Your task to perform on an android device: Go to sound settings Image 0: 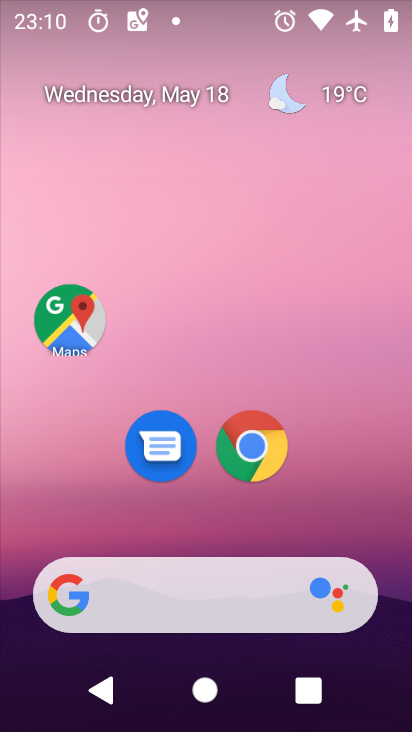
Step 0: press home button
Your task to perform on an android device: Go to sound settings Image 1: 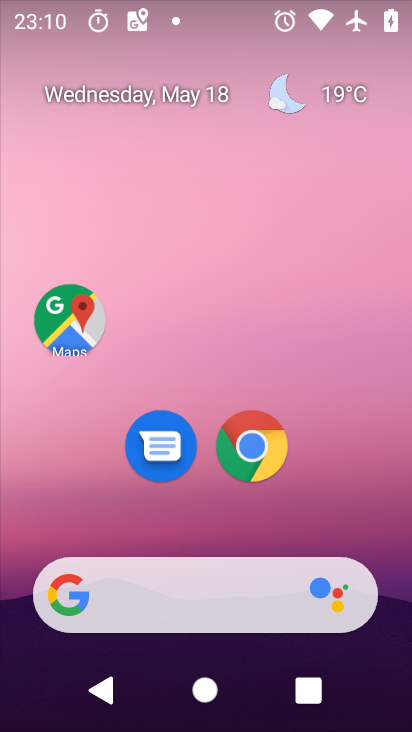
Step 1: drag from (239, 584) to (366, 97)
Your task to perform on an android device: Go to sound settings Image 2: 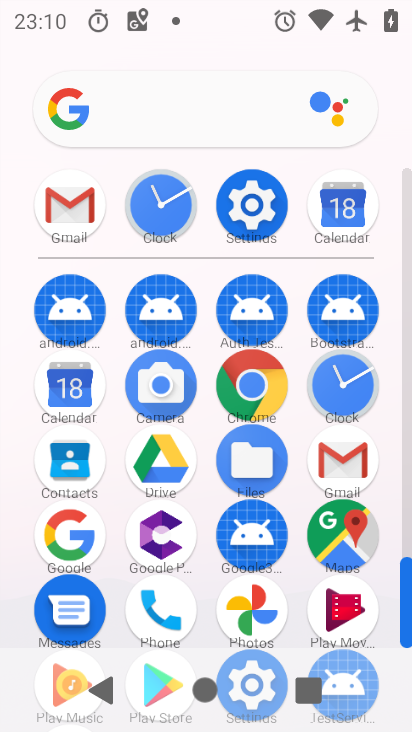
Step 2: click (259, 199)
Your task to perform on an android device: Go to sound settings Image 3: 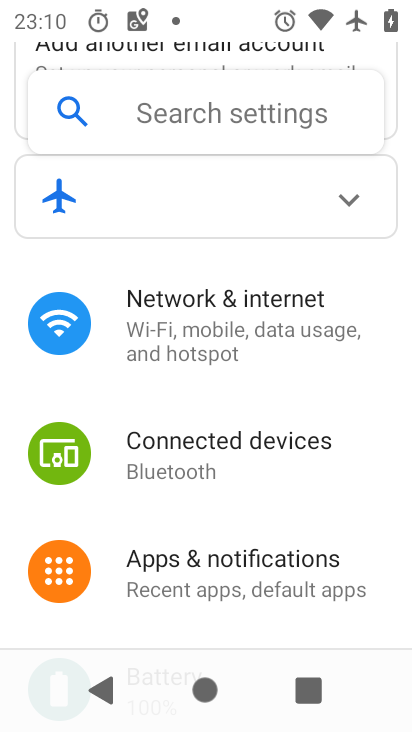
Step 3: drag from (256, 551) to (334, 154)
Your task to perform on an android device: Go to sound settings Image 4: 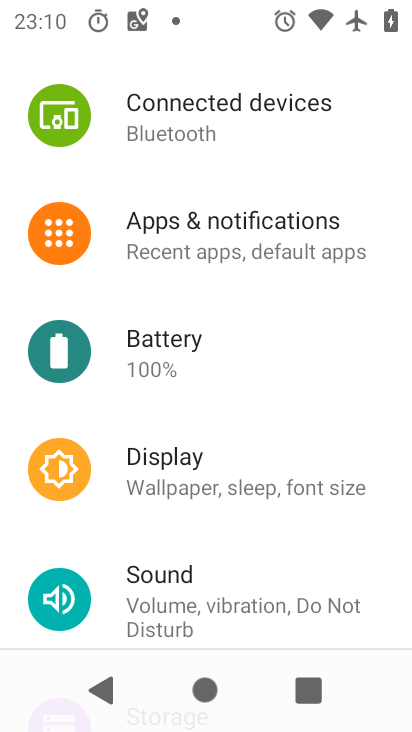
Step 4: drag from (206, 543) to (304, 96)
Your task to perform on an android device: Go to sound settings Image 5: 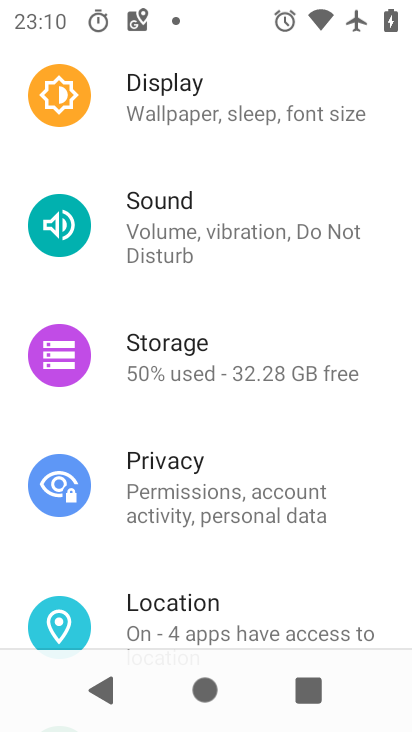
Step 5: click (171, 223)
Your task to perform on an android device: Go to sound settings Image 6: 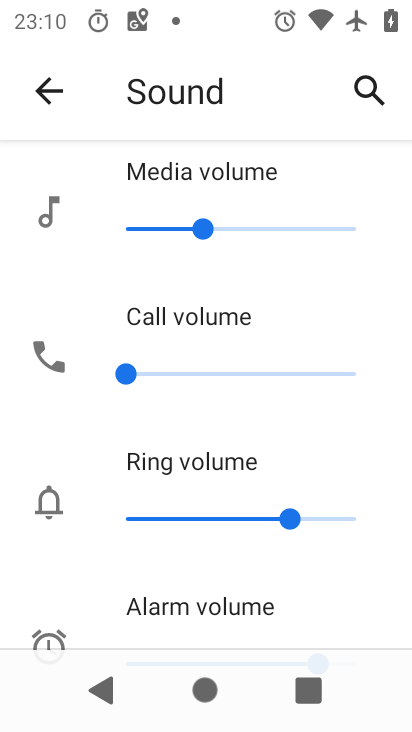
Step 6: task complete